Your task to perform on an android device: turn off sleep mode Image 0: 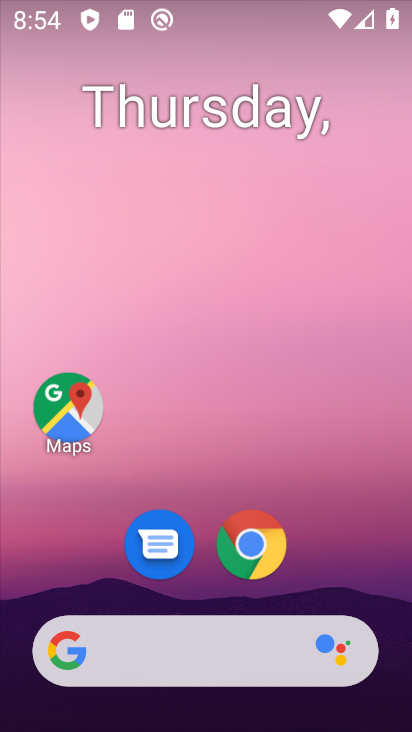
Step 0: drag from (135, 724) to (220, 24)
Your task to perform on an android device: turn off sleep mode Image 1: 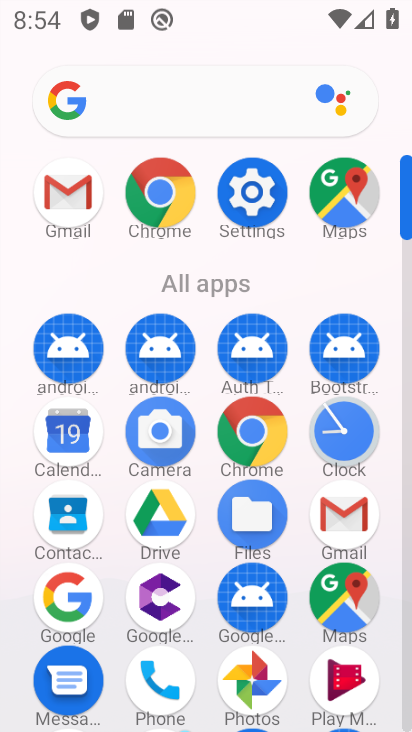
Step 1: click (260, 217)
Your task to perform on an android device: turn off sleep mode Image 2: 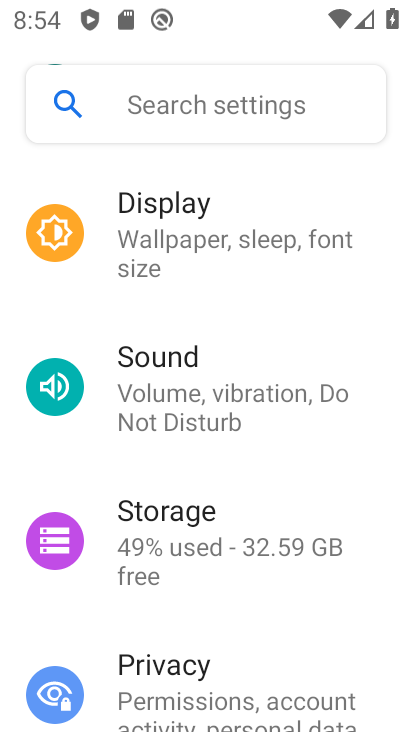
Step 2: click (248, 241)
Your task to perform on an android device: turn off sleep mode Image 3: 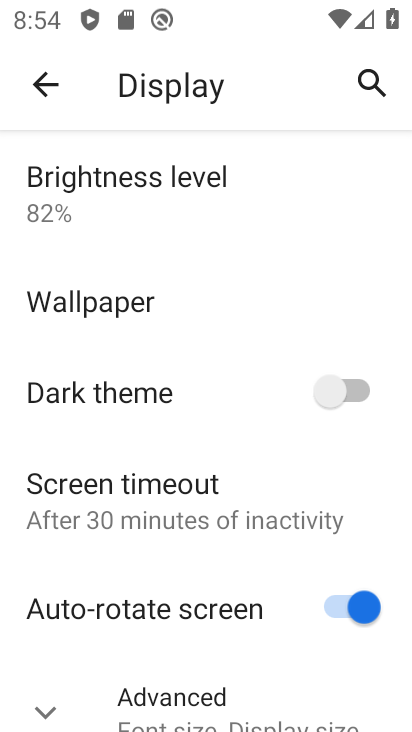
Step 3: task complete